Your task to perform on an android device: find photos in the google photos app Image 0: 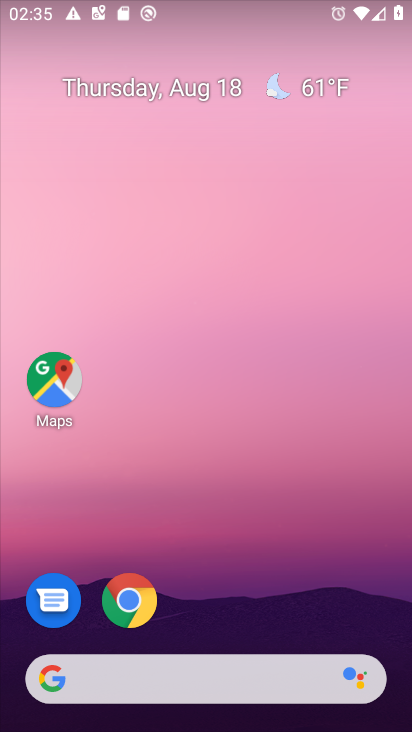
Step 0: press home button
Your task to perform on an android device: find photos in the google photos app Image 1: 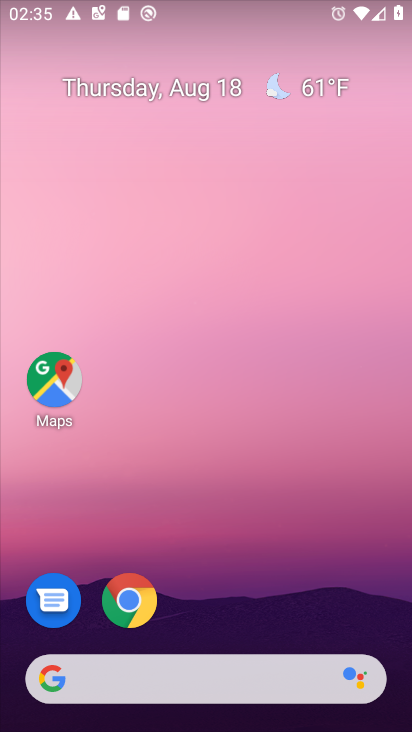
Step 1: drag from (251, 625) to (265, 192)
Your task to perform on an android device: find photos in the google photos app Image 2: 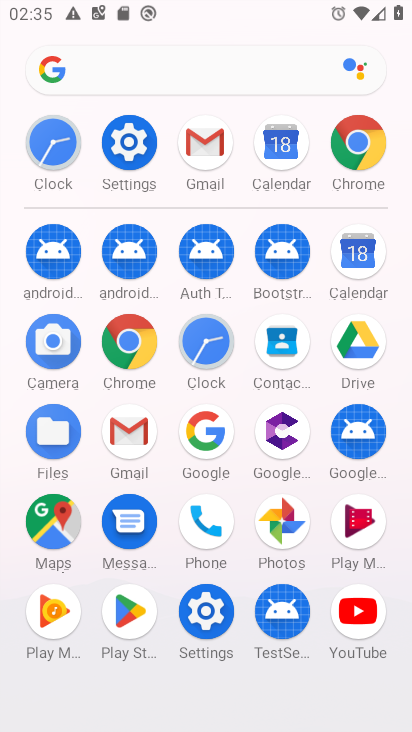
Step 2: click (279, 527)
Your task to perform on an android device: find photos in the google photos app Image 3: 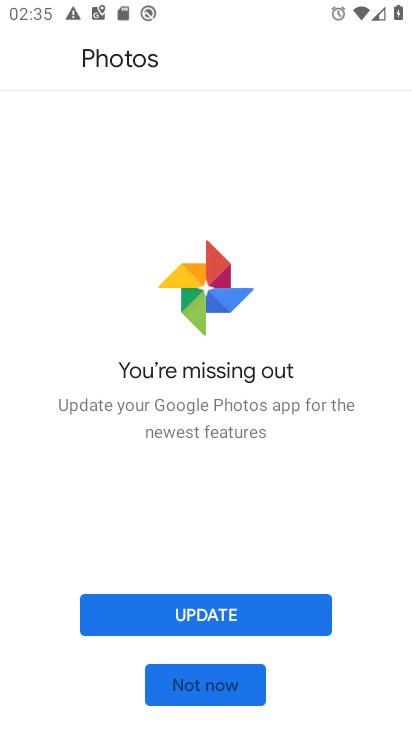
Step 3: click (180, 613)
Your task to perform on an android device: find photos in the google photos app Image 4: 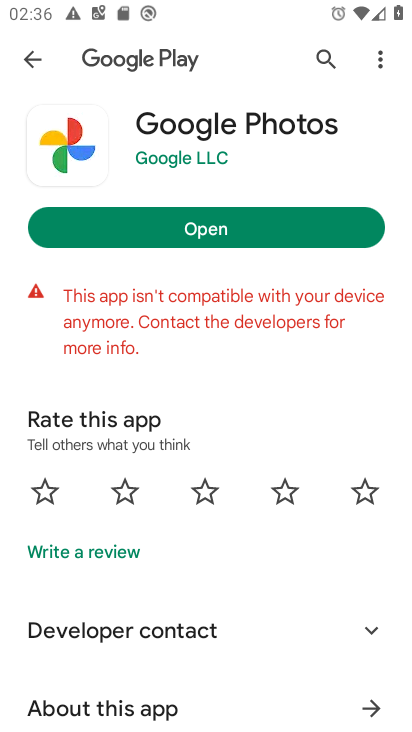
Step 4: task complete